Your task to perform on an android device: turn on priority inbox in the gmail app Image 0: 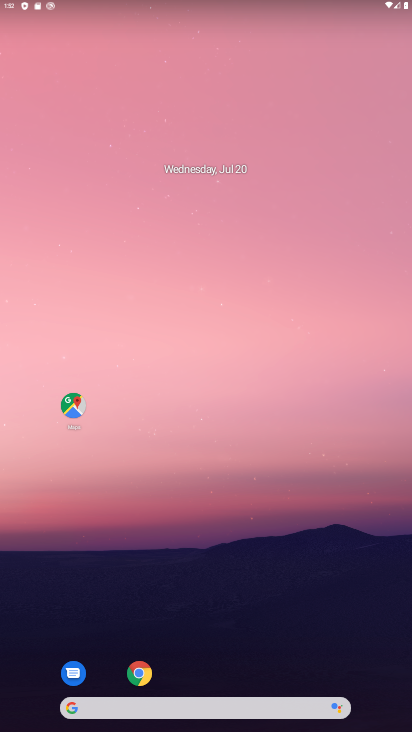
Step 0: drag from (266, 516) to (289, 1)
Your task to perform on an android device: turn on priority inbox in the gmail app Image 1: 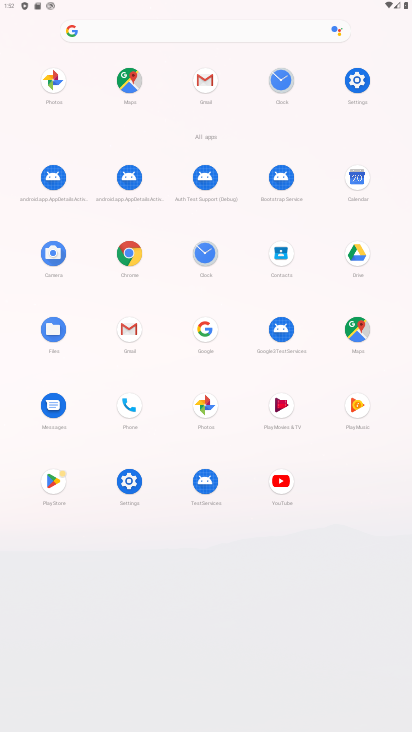
Step 1: click (206, 91)
Your task to perform on an android device: turn on priority inbox in the gmail app Image 2: 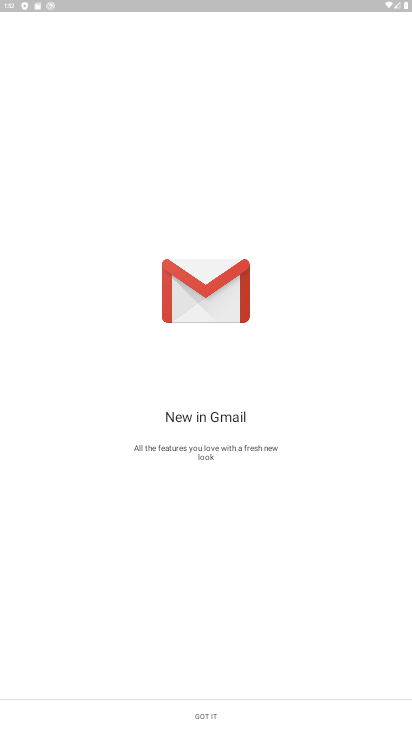
Step 2: click (217, 717)
Your task to perform on an android device: turn on priority inbox in the gmail app Image 3: 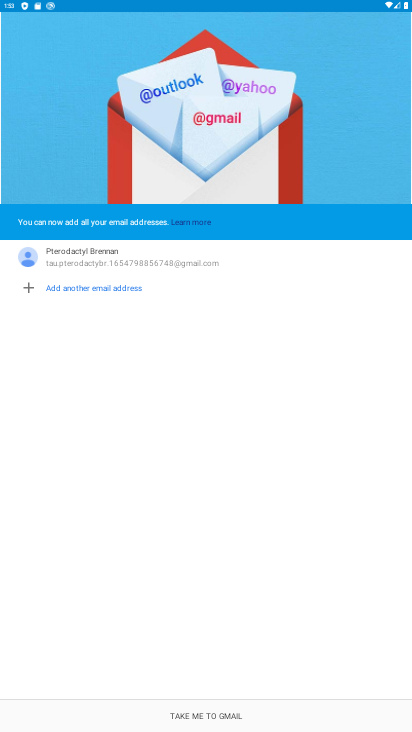
Step 3: click (217, 717)
Your task to perform on an android device: turn on priority inbox in the gmail app Image 4: 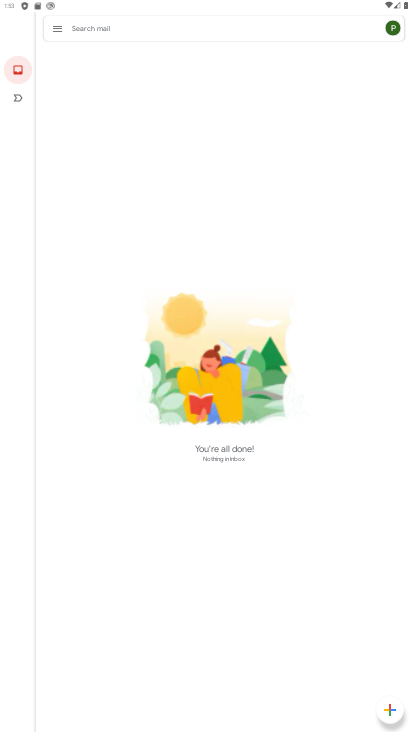
Step 4: click (54, 29)
Your task to perform on an android device: turn on priority inbox in the gmail app Image 5: 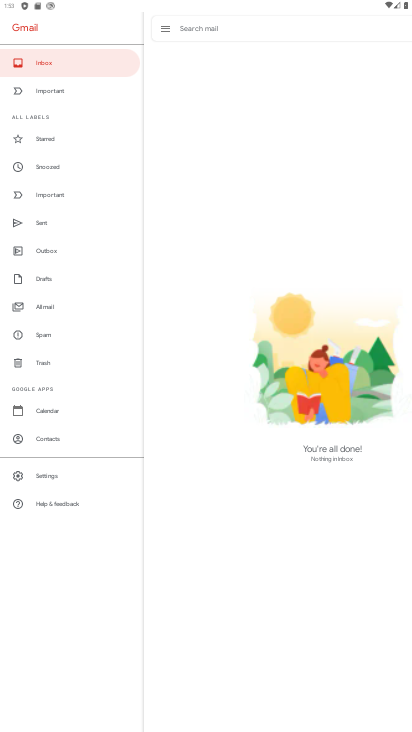
Step 5: click (76, 468)
Your task to perform on an android device: turn on priority inbox in the gmail app Image 6: 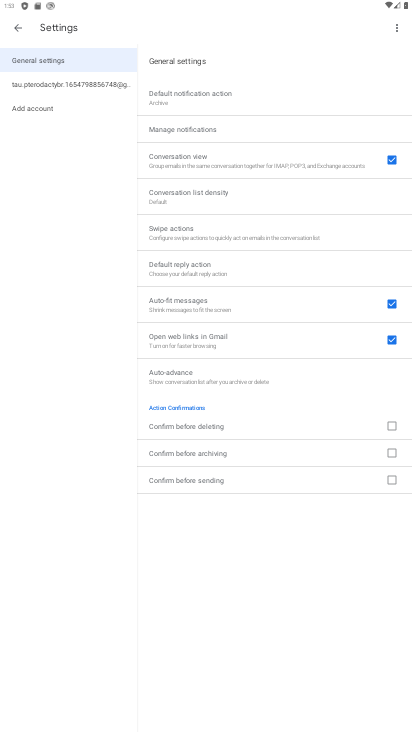
Step 6: click (86, 78)
Your task to perform on an android device: turn on priority inbox in the gmail app Image 7: 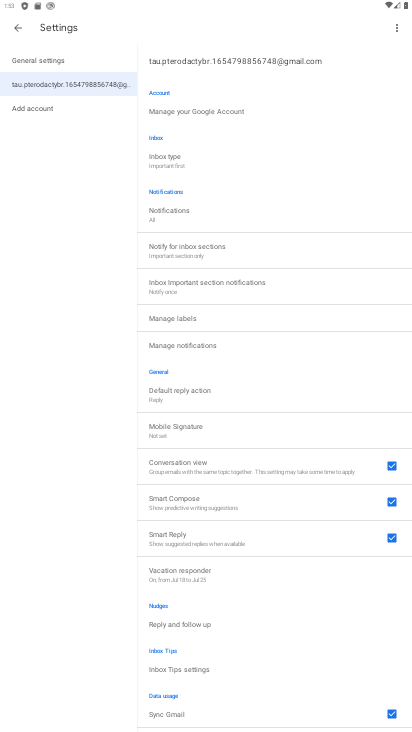
Step 7: click (182, 155)
Your task to perform on an android device: turn on priority inbox in the gmail app Image 8: 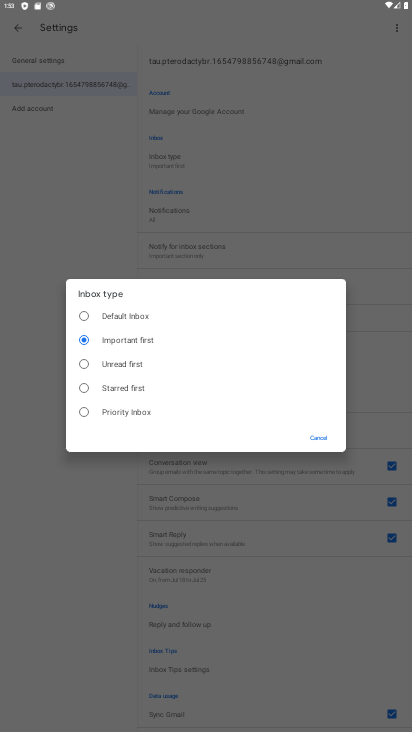
Step 8: click (129, 410)
Your task to perform on an android device: turn on priority inbox in the gmail app Image 9: 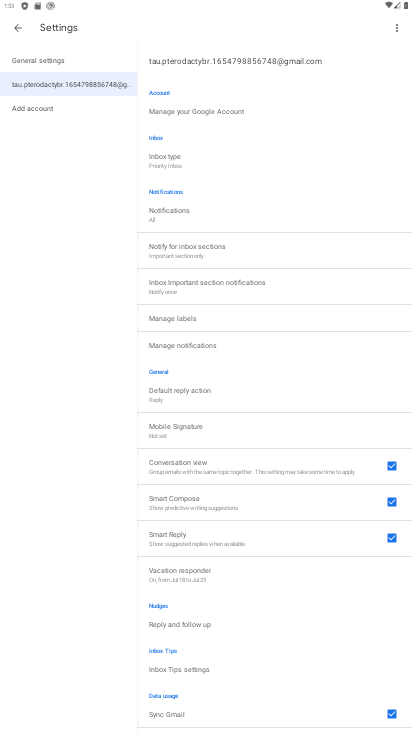
Step 9: task complete